Your task to perform on an android device: clear history in the chrome app Image 0: 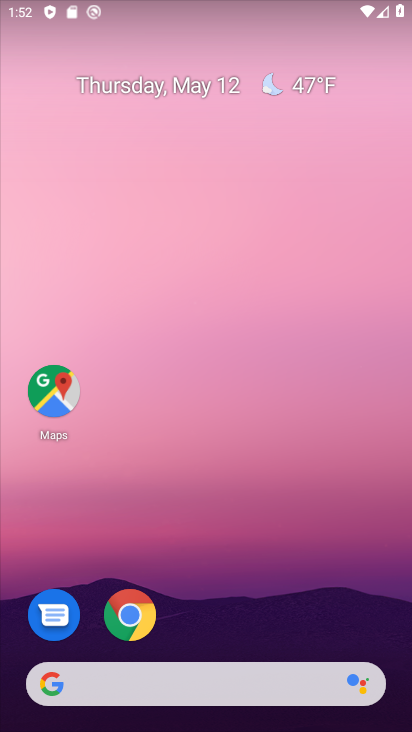
Step 0: click (128, 613)
Your task to perform on an android device: clear history in the chrome app Image 1: 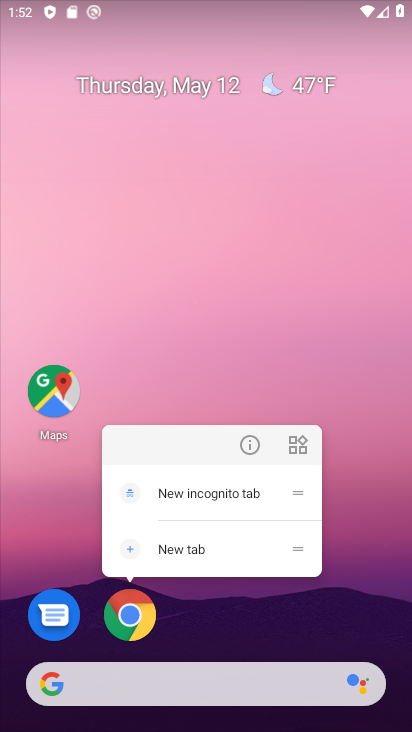
Step 1: click (140, 615)
Your task to perform on an android device: clear history in the chrome app Image 2: 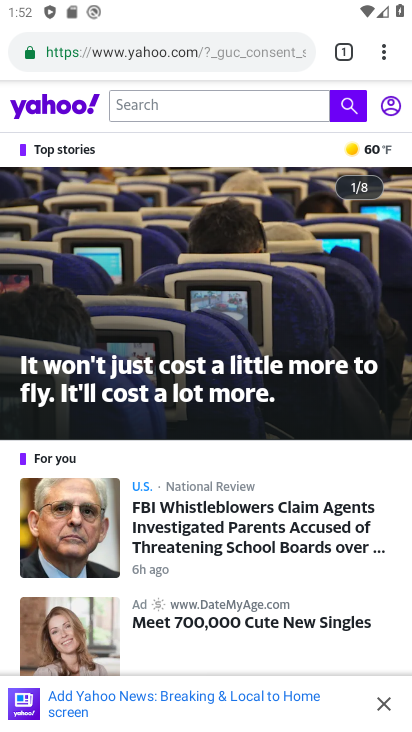
Step 2: click (371, 61)
Your task to perform on an android device: clear history in the chrome app Image 3: 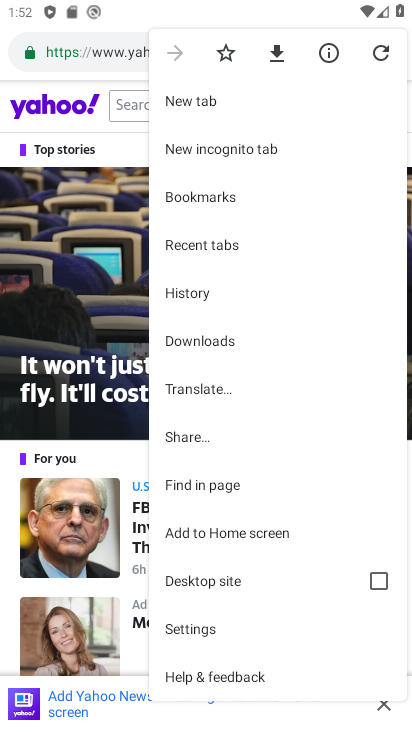
Step 3: click (215, 287)
Your task to perform on an android device: clear history in the chrome app Image 4: 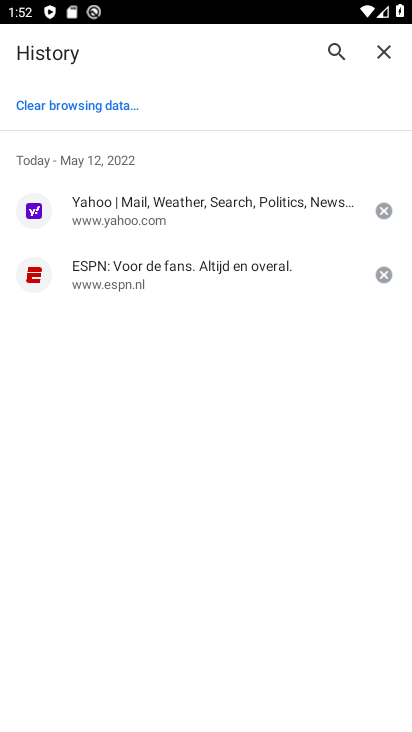
Step 4: click (86, 103)
Your task to perform on an android device: clear history in the chrome app Image 5: 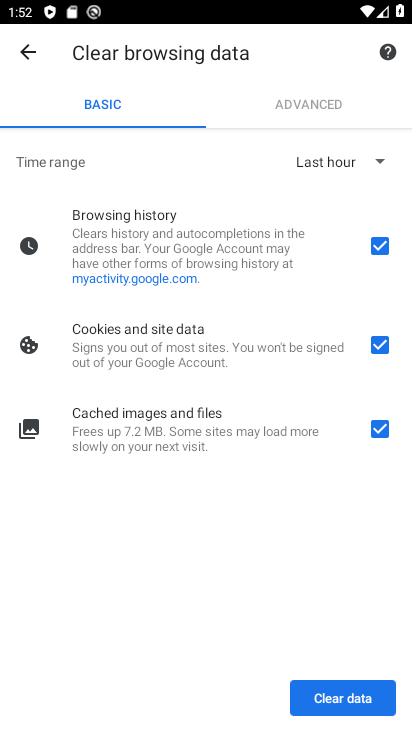
Step 5: click (382, 343)
Your task to perform on an android device: clear history in the chrome app Image 6: 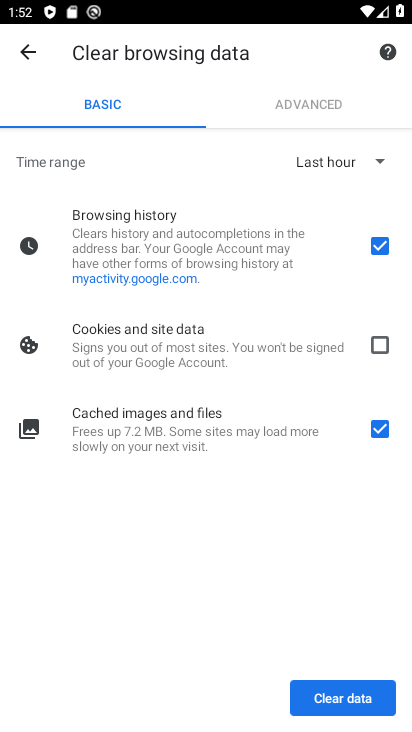
Step 6: click (379, 435)
Your task to perform on an android device: clear history in the chrome app Image 7: 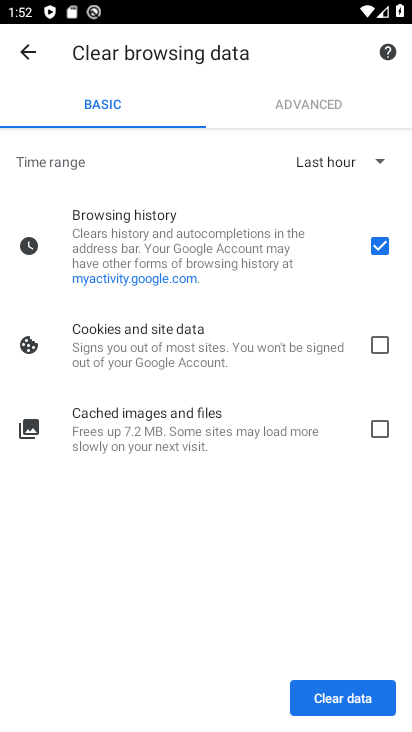
Step 7: click (332, 702)
Your task to perform on an android device: clear history in the chrome app Image 8: 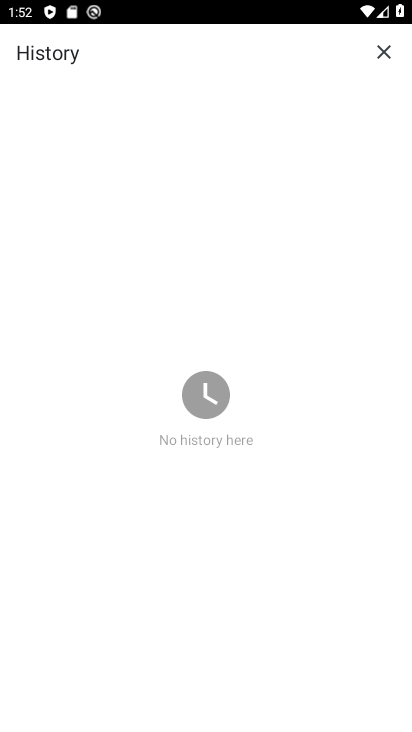
Step 8: task complete